Your task to perform on an android device: move a message to another label in the gmail app Image 0: 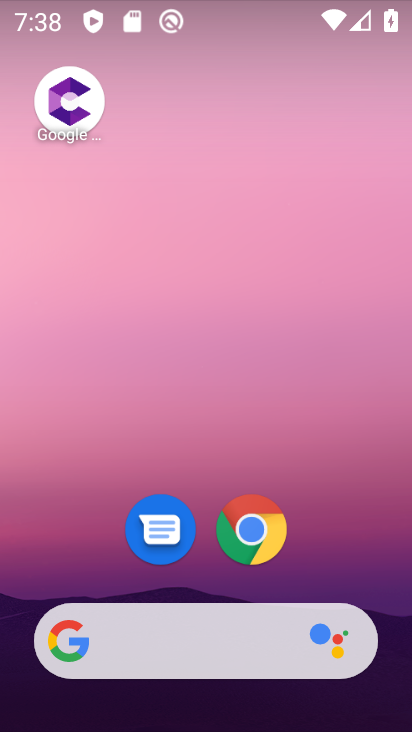
Step 0: drag from (101, 548) to (319, 188)
Your task to perform on an android device: move a message to another label in the gmail app Image 1: 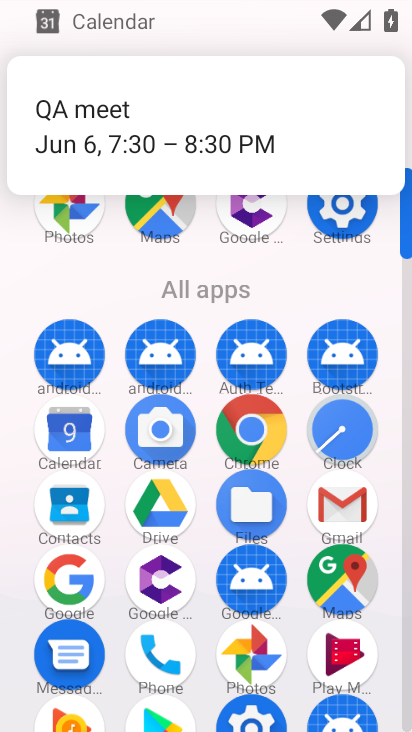
Step 1: click (333, 509)
Your task to perform on an android device: move a message to another label in the gmail app Image 2: 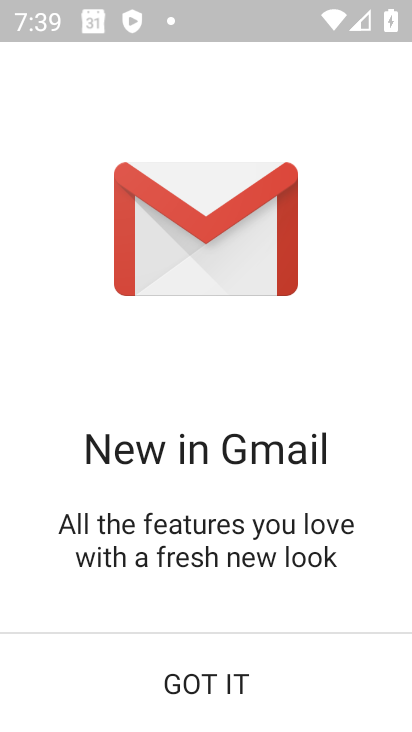
Step 2: click (216, 672)
Your task to perform on an android device: move a message to another label in the gmail app Image 3: 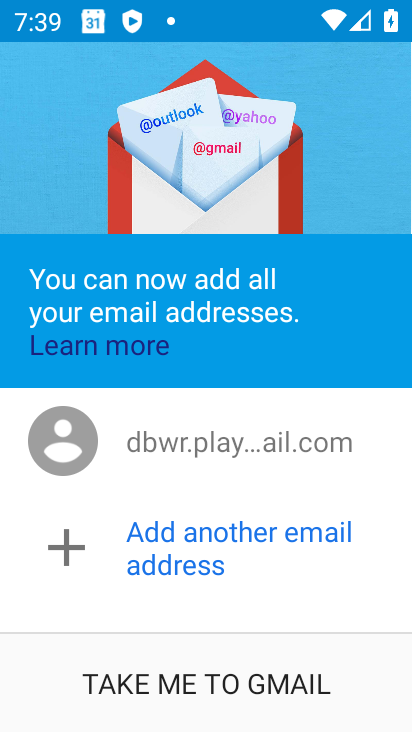
Step 3: click (233, 693)
Your task to perform on an android device: move a message to another label in the gmail app Image 4: 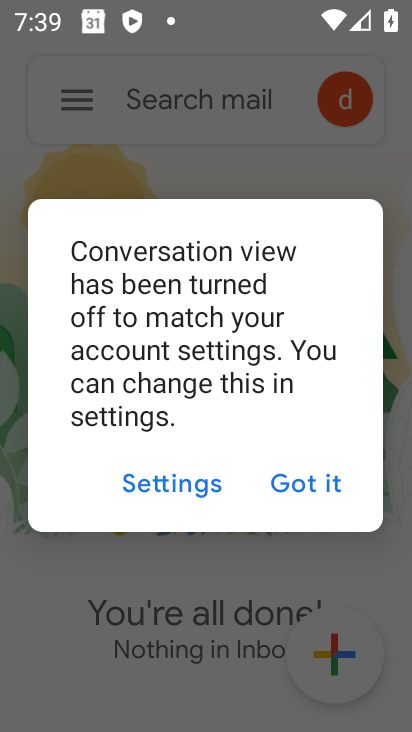
Step 4: click (318, 477)
Your task to perform on an android device: move a message to another label in the gmail app Image 5: 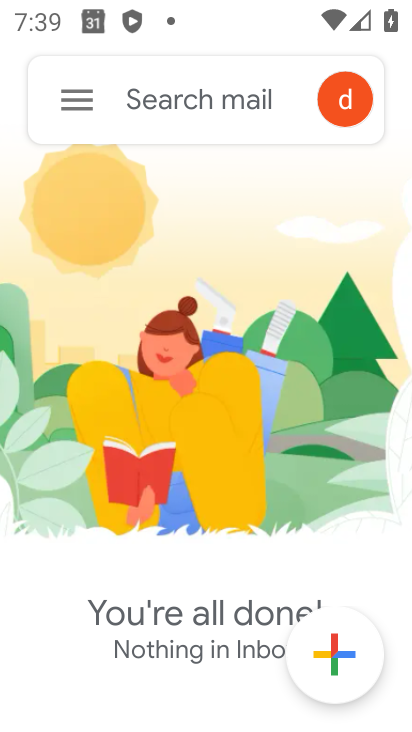
Step 5: click (67, 85)
Your task to perform on an android device: move a message to another label in the gmail app Image 6: 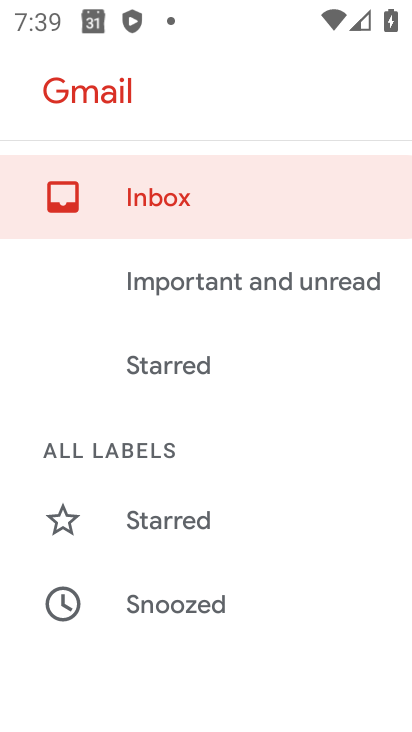
Step 6: click (141, 209)
Your task to perform on an android device: move a message to another label in the gmail app Image 7: 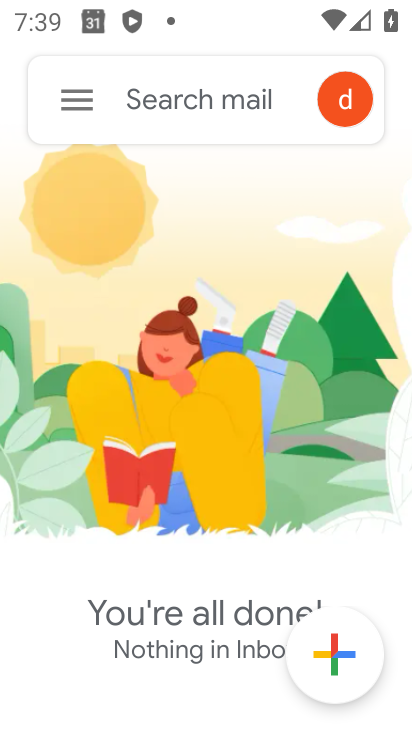
Step 7: task complete